Your task to perform on an android device: Open calendar and show me the first week of next month Image 0: 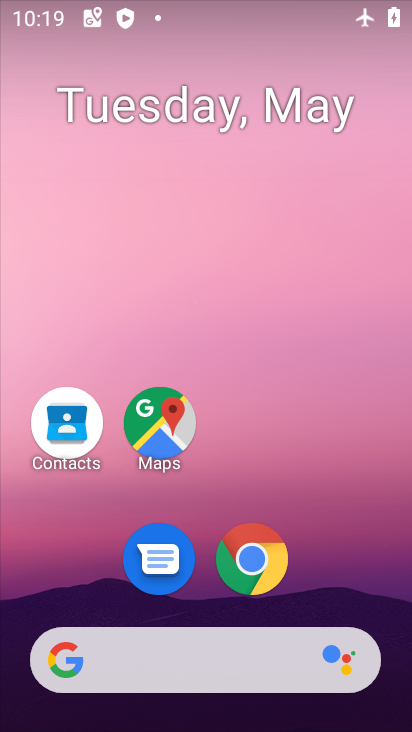
Step 0: drag from (347, 592) to (330, 216)
Your task to perform on an android device: Open calendar and show me the first week of next month Image 1: 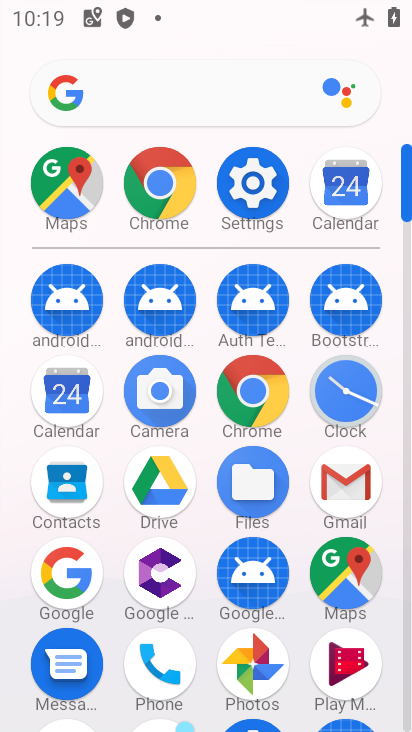
Step 1: click (53, 411)
Your task to perform on an android device: Open calendar and show me the first week of next month Image 2: 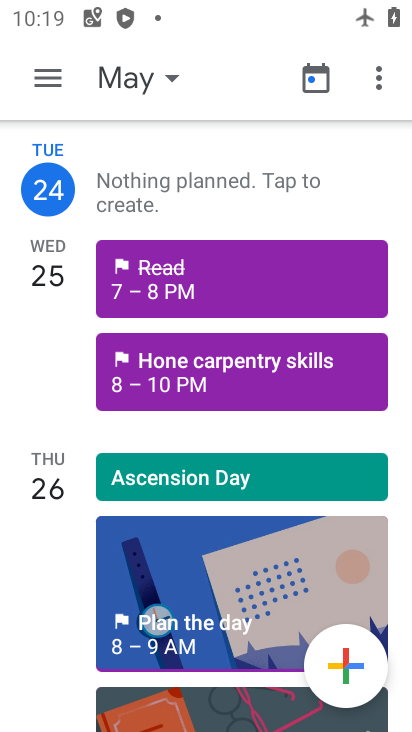
Step 2: task complete